Your task to perform on an android device: add a contact Image 0: 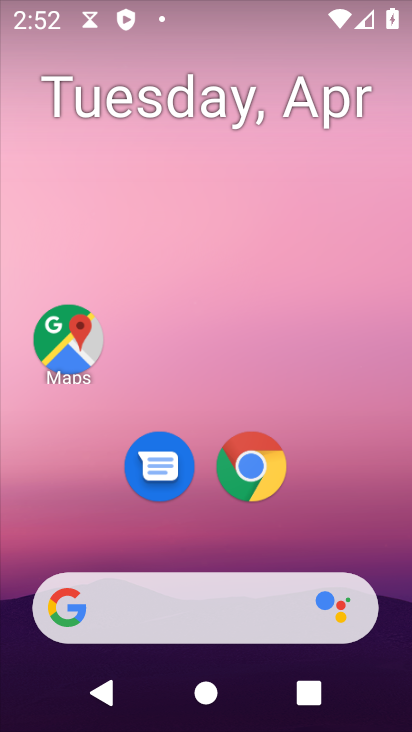
Step 0: drag from (305, 484) to (224, 31)
Your task to perform on an android device: add a contact Image 1: 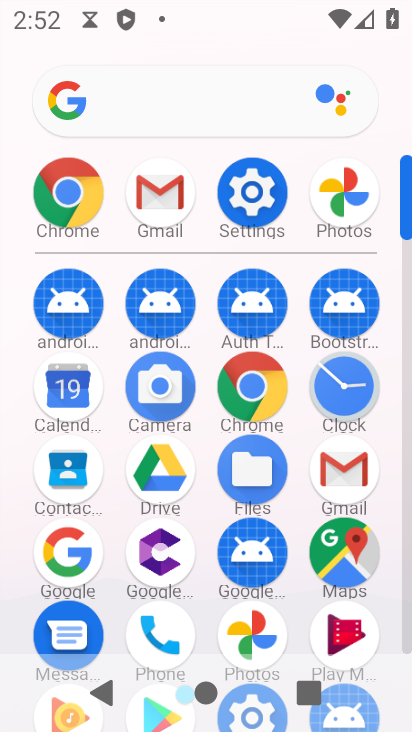
Step 1: drag from (8, 568) to (6, 305)
Your task to perform on an android device: add a contact Image 2: 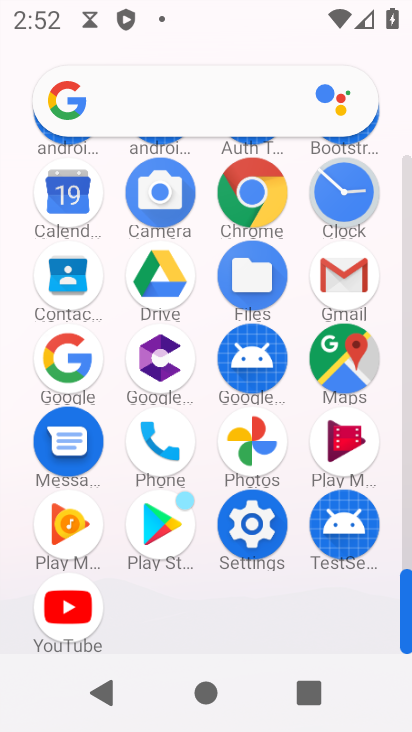
Step 2: click (65, 271)
Your task to perform on an android device: add a contact Image 3: 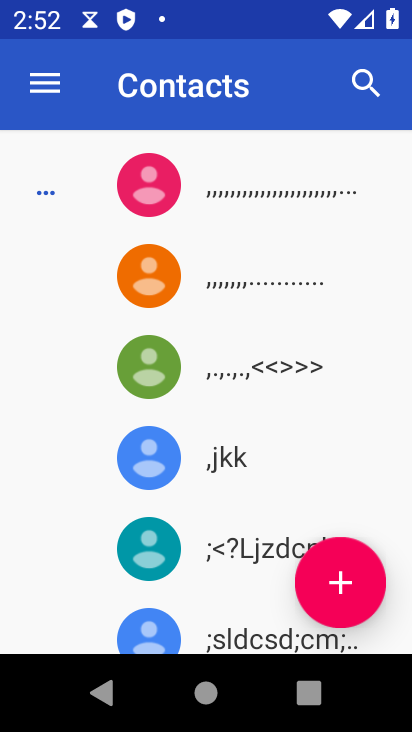
Step 3: click (329, 560)
Your task to perform on an android device: add a contact Image 4: 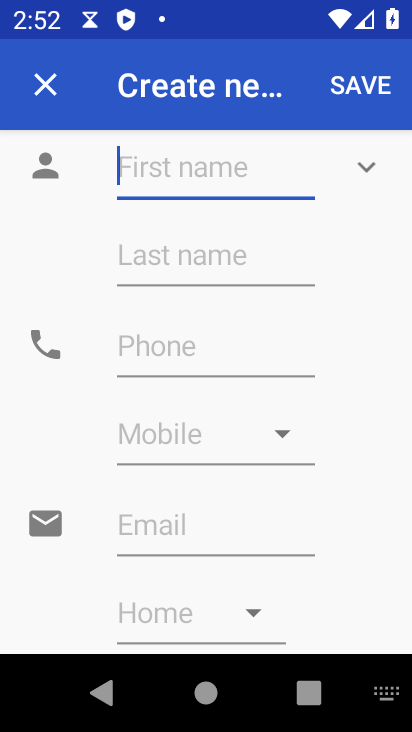
Step 4: click (193, 169)
Your task to perform on an android device: add a contact Image 5: 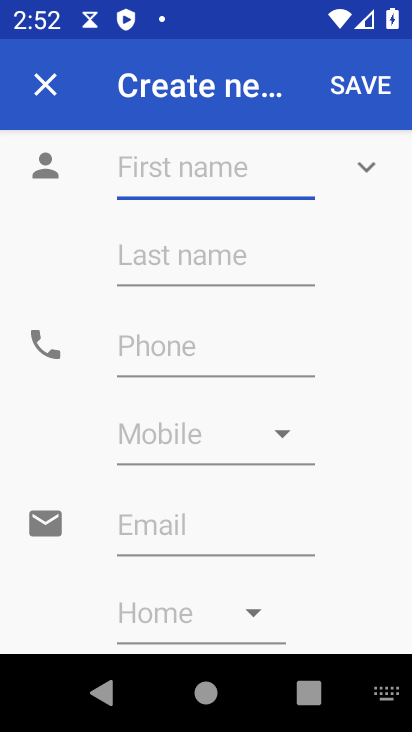
Step 5: type "gxfgchg"
Your task to perform on an android device: add a contact Image 6: 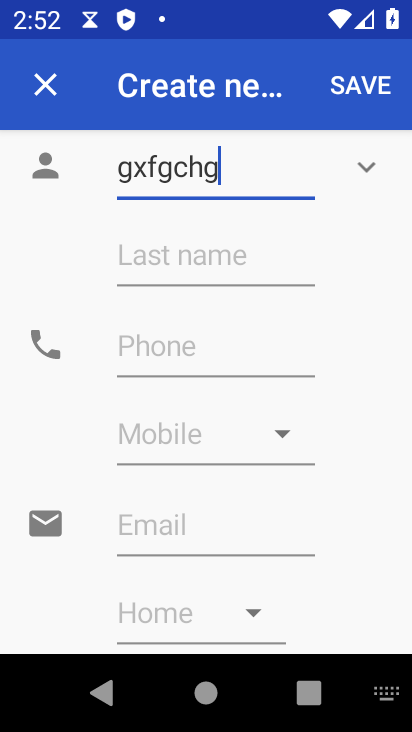
Step 6: type ""
Your task to perform on an android device: add a contact Image 7: 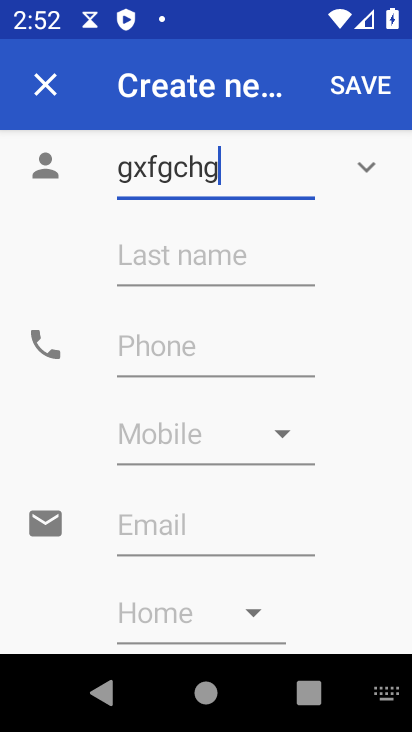
Step 7: click (198, 357)
Your task to perform on an android device: add a contact Image 8: 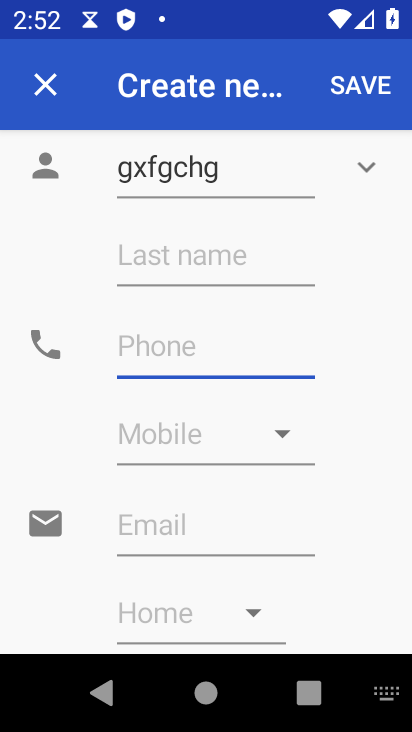
Step 8: type "7564658768798"
Your task to perform on an android device: add a contact Image 9: 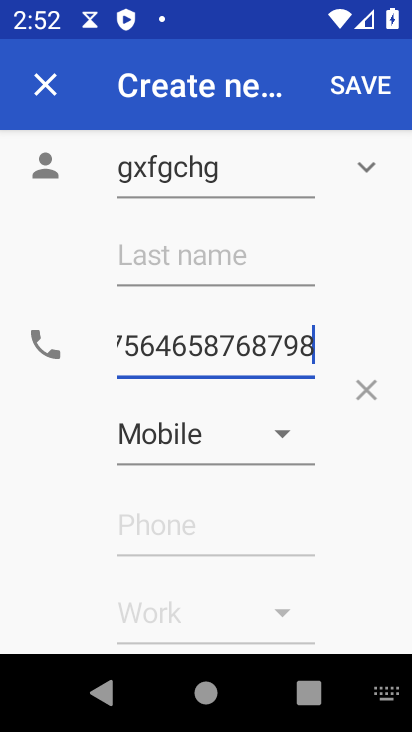
Step 9: type ""
Your task to perform on an android device: add a contact Image 10: 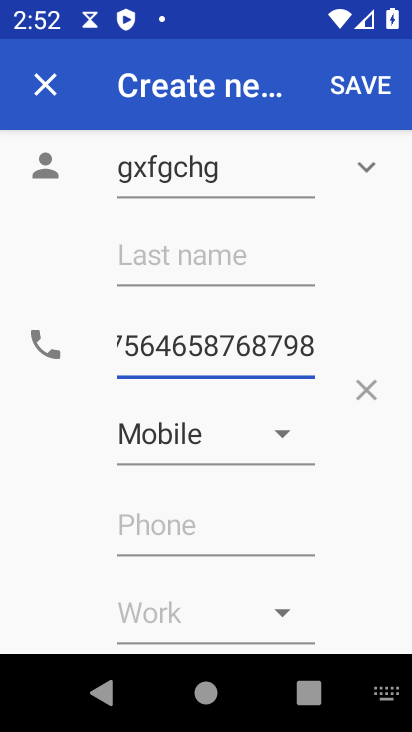
Step 10: click (357, 95)
Your task to perform on an android device: add a contact Image 11: 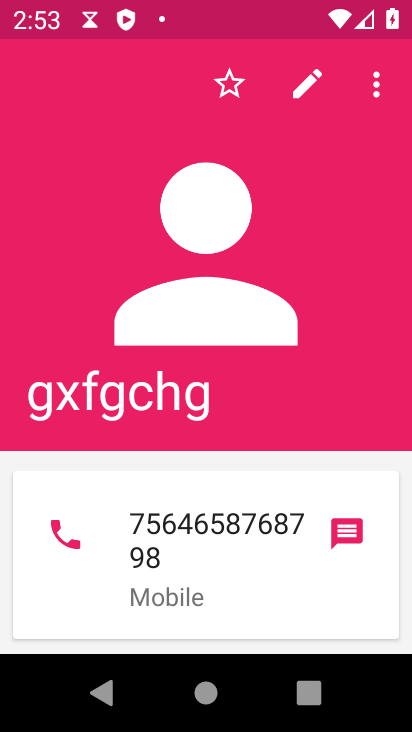
Step 11: task complete